Your task to perform on an android device: Open calendar and show me the fourth week of next month Image 0: 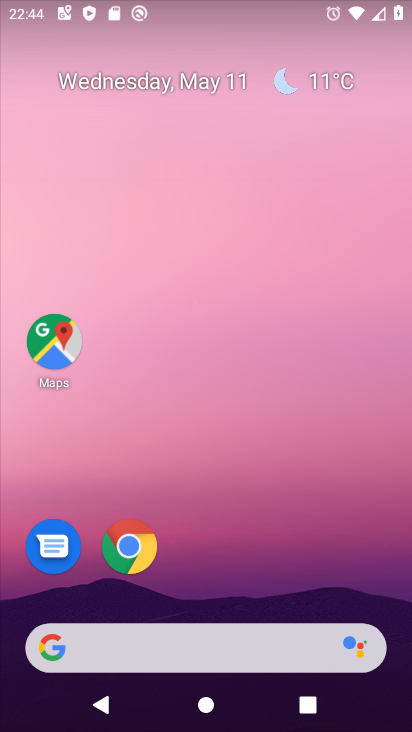
Step 0: drag from (402, 646) to (277, 176)
Your task to perform on an android device: Open calendar and show me the fourth week of next month Image 1: 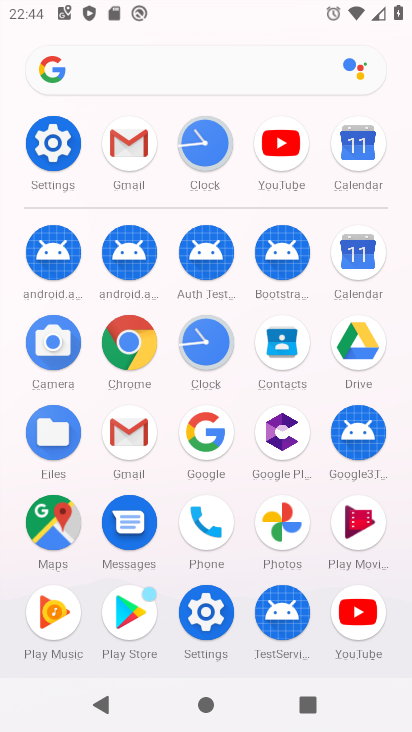
Step 1: click (358, 246)
Your task to perform on an android device: Open calendar and show me the fourth week of next month Image 2: 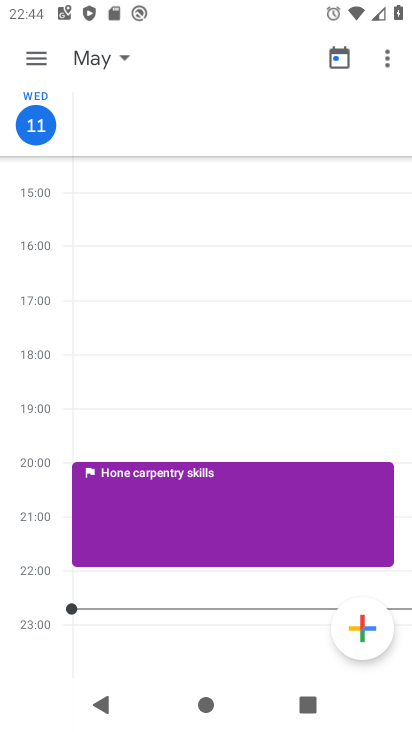
Step 2: click (39, 55)
Your task to perform on an android device: Open calendar and show me the fourth week of next month Image 3: 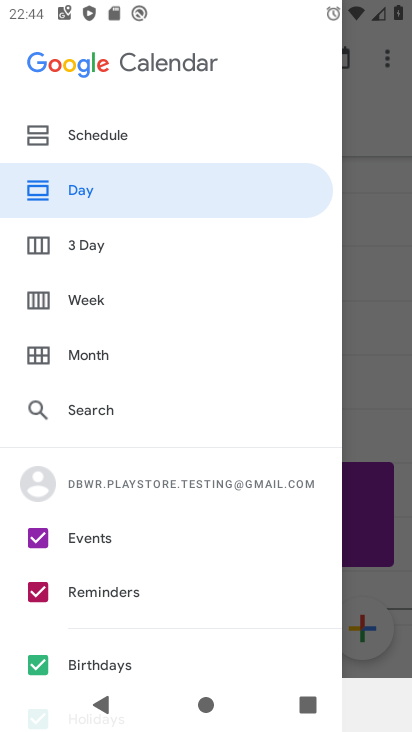
Step 3: click (85, 300)
Your task to perform on an android device: Open calendar and show me the fourth week of next month Image 4: 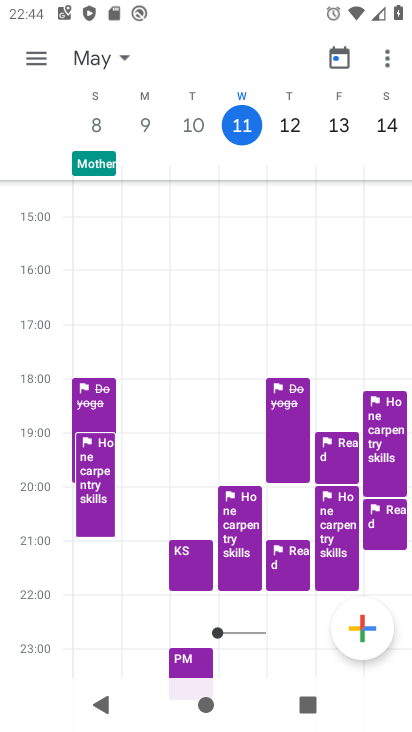
Step 4: click (125, 55)
Your task to perform on an android device: Open calendar and show me the fourth week of next month Image 5: 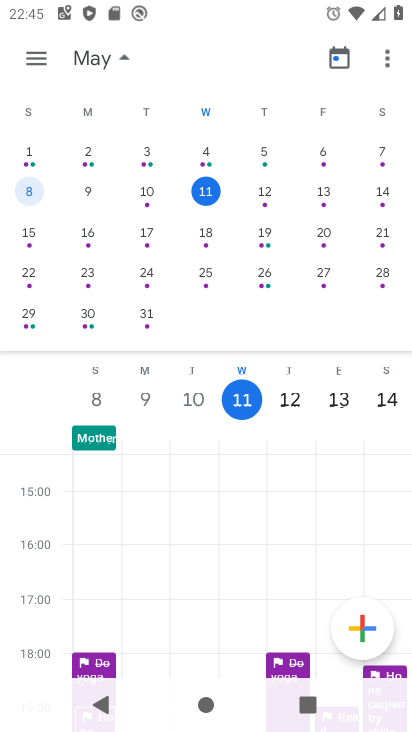
Step 5: drag from (376, 233) to (2, 186)
Your task to perform on an android device: Open calendar and show me the fourth week of next month Image 6: 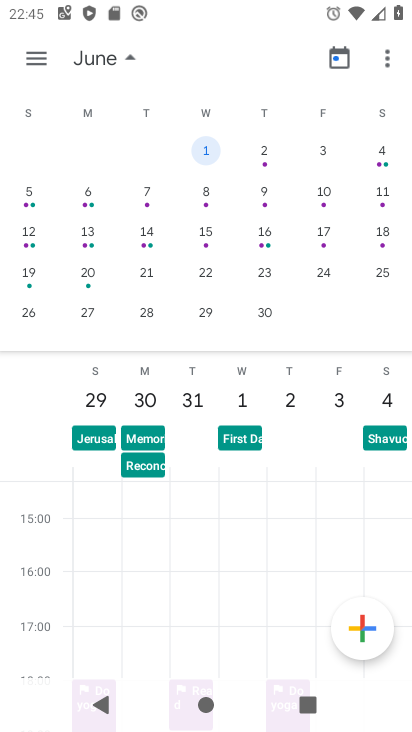
Step 6: click (32, 274)
Your task to perform on an android device: Open calendar and show me the fourth week of next month Image 7: 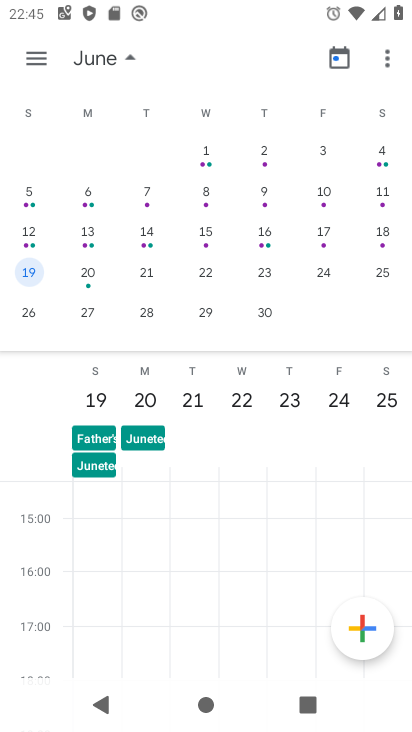
Step 7: task complete